Your task to perform on an android device: turn on bluetooth scan Image 0: 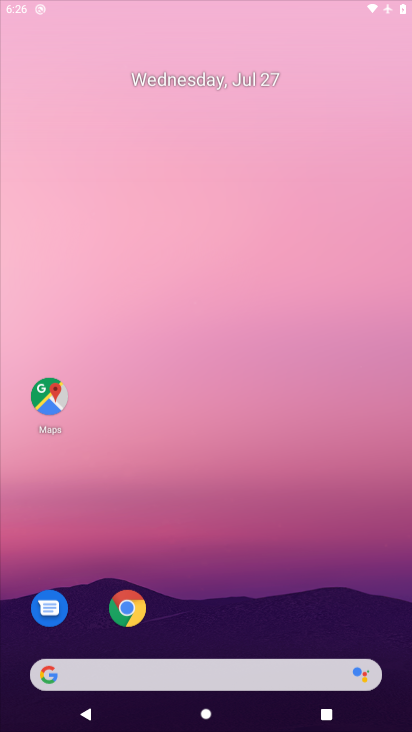
Step 0: press home button
Your task to perform on an android device: turn on bluetooth scan Image 1: 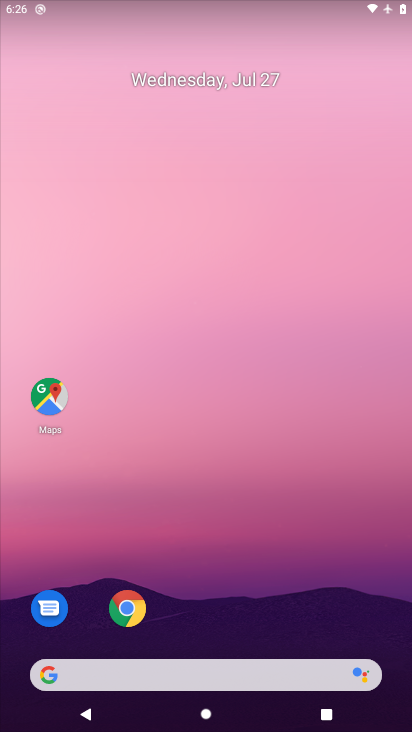
Step 1: drag from (211, 625) to (166, 341)
Your task to perform on an android device: turn on bluetooth scan Image 2: 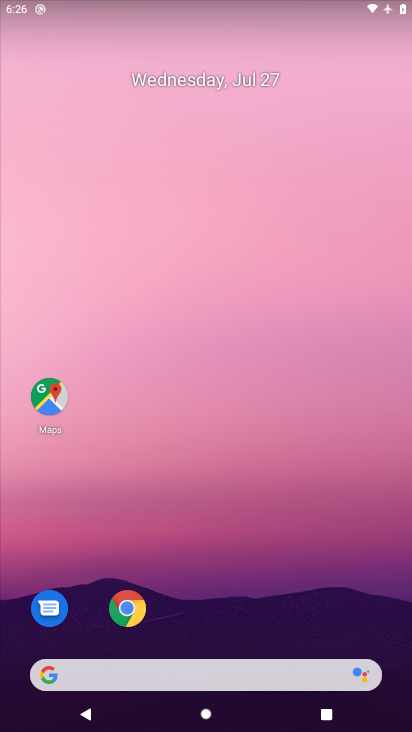
Step 2: drag from (214, 633) to (176, 288)
Your task to perform on an android device: turn on bluetooth scan Image 3: 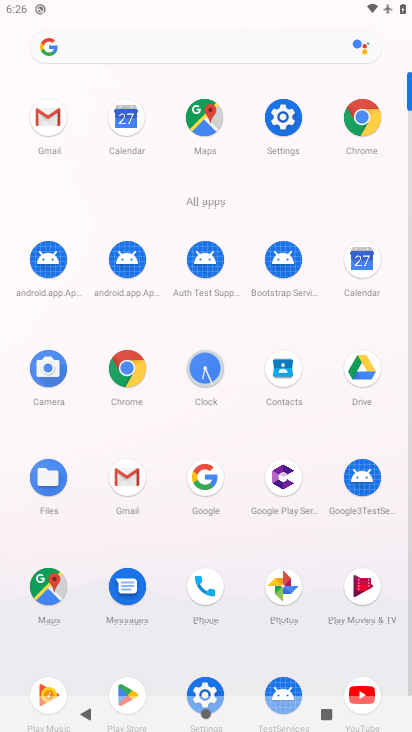
Step 3: click (275, 119)
Your task to perform on an android device: turn on bluetooth scan Image 4: 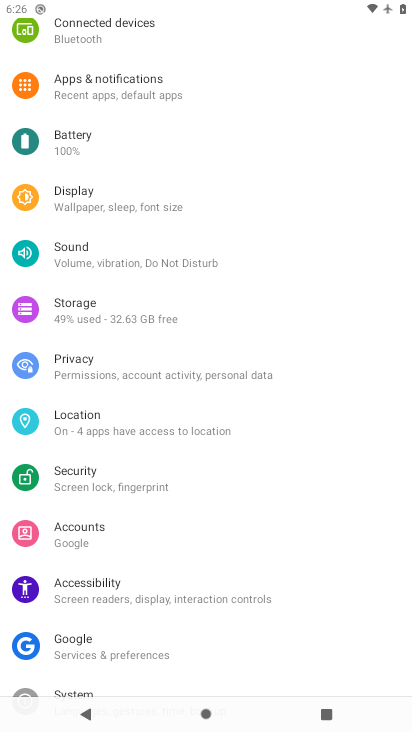
Step 4: click (84, 416)
Your task to perform on an android device: turn on bluetooth scan Image 5: 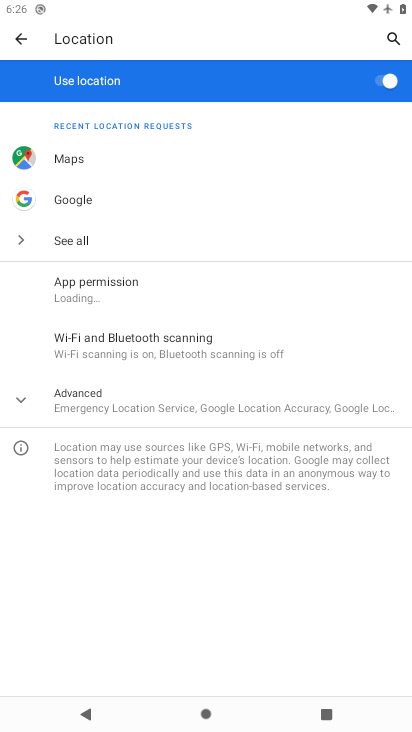
Step 5: click (114, 354)
Your task to perform on an android device: turn on bluetooth scan Image 6: 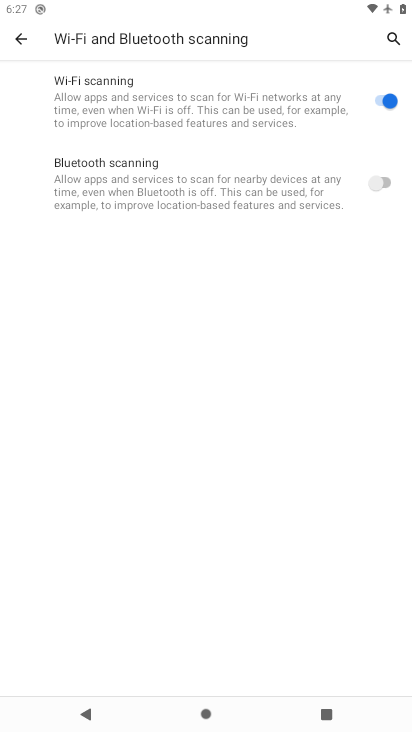
Step 6: click (379, 181)
Your task to perform on an android device: turn on bluetooth scan Image 7: 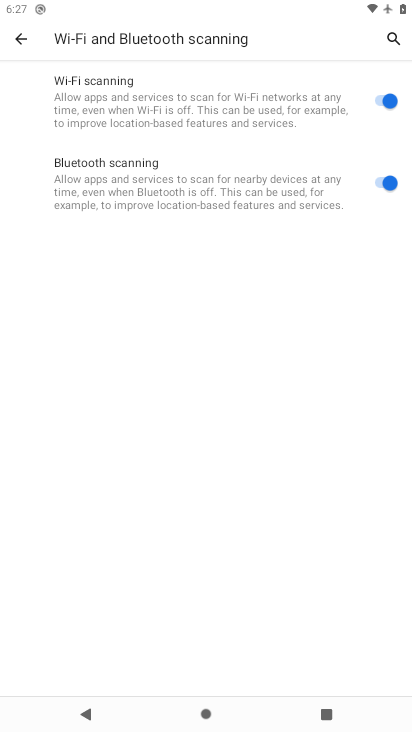
Step 7: task complete